Your task to perform on an android device: toggle data saver in the chrome app Image 0: 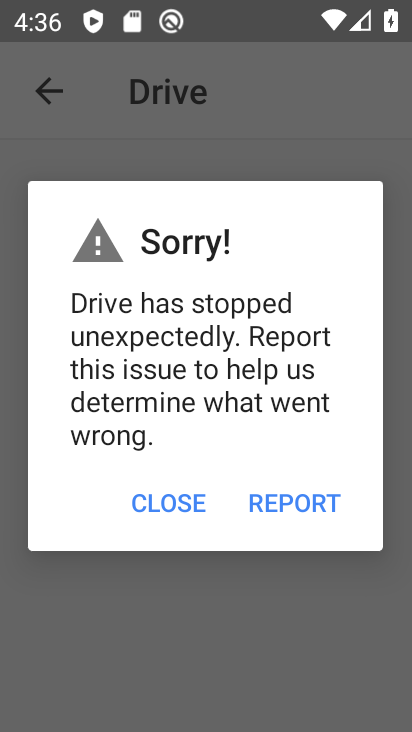
Step 0: press home button
Your task to perform on an android device: toggle data saver in the chrome app Image 1: 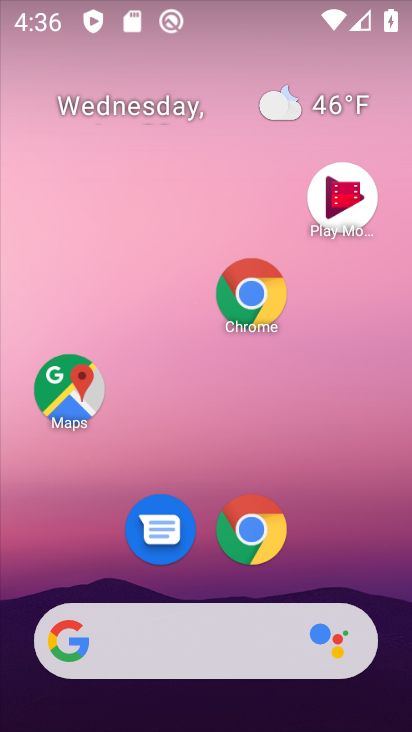
Step 1: click (245, 531)
Your task to perform on an android device: toggle data saver in the chrome app Image 2: 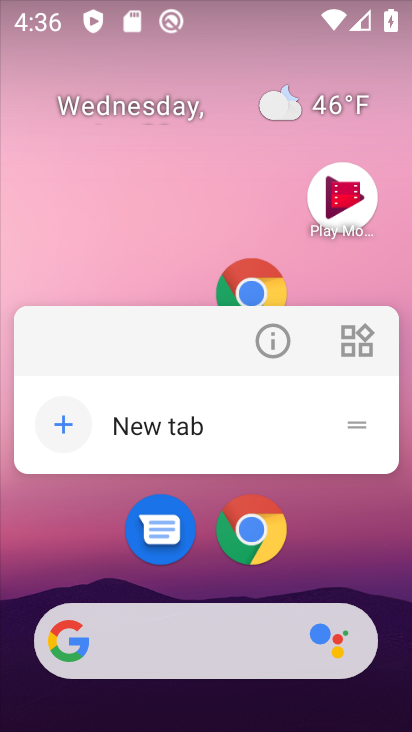
Step 2: click (245, 531)
Your task to perform on an android device: toggle data saver in the chrome app Image 3: 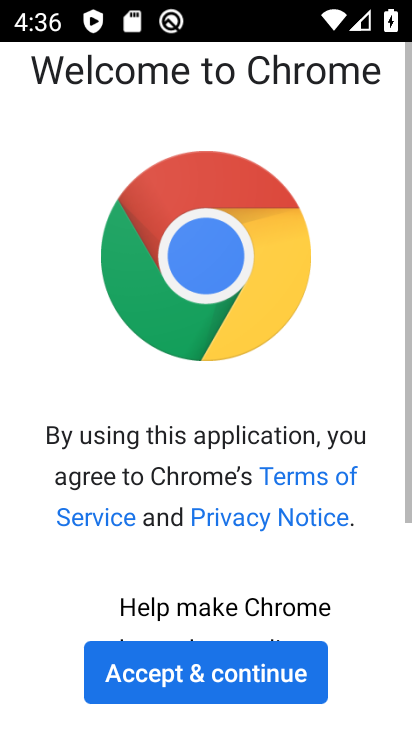
Step 3: click (249, 688)
Your task to perform on an android device: toggle data saver in the chrome app Image 4: 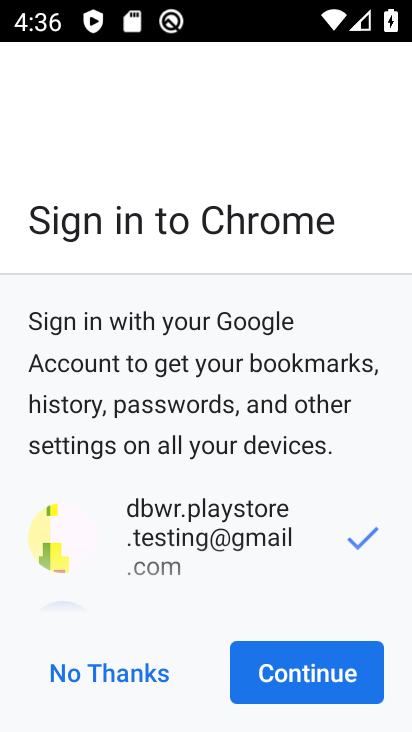
Step 4: click (268, 682)
Your task to perform on an android device: toggle data saver in the chrome app Image 5: 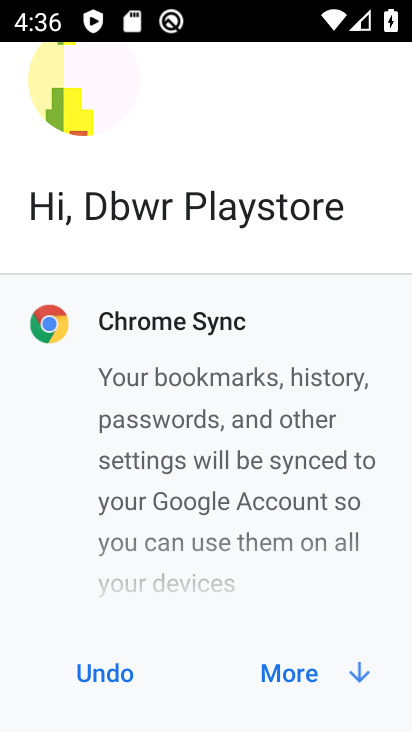
Step 5: click (282, 675)
Your task to perform on an android device: toggle data saver in the chrome app Image 6: 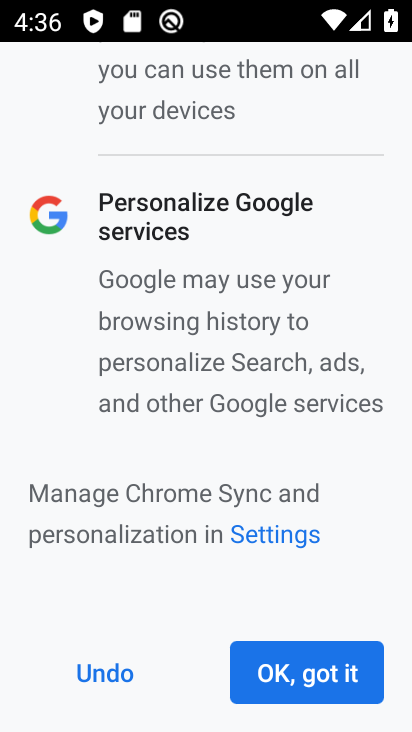
Step 6: click (282, 675)
Your task to perform on an android device: toggle data saver in the chrome app Image 7: 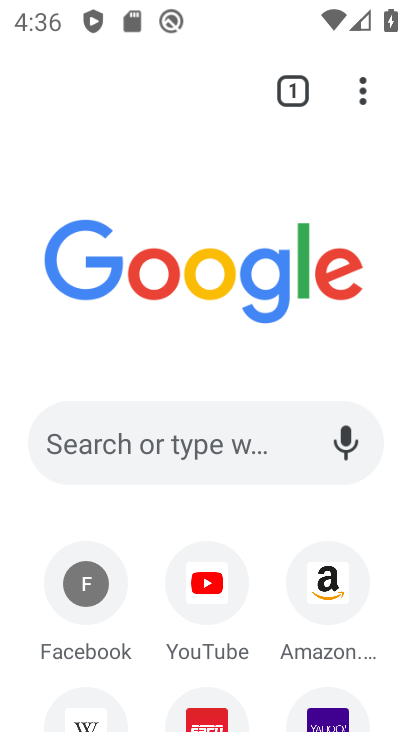
Step 7: drag from (265, 679) to (283, 517)
Your task to perform on an android device: toggle data saver in the chrome app Image 8: 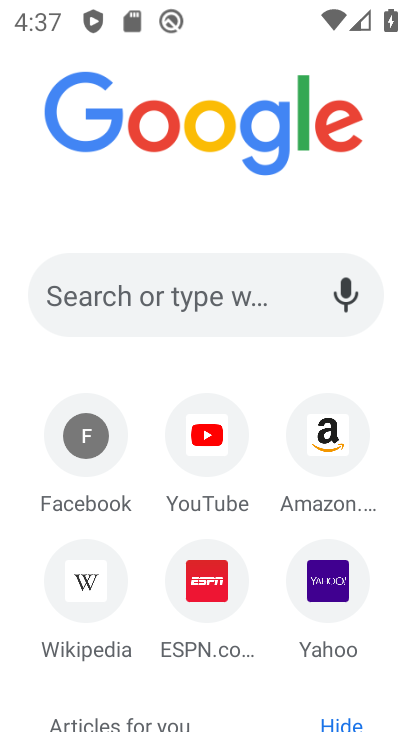
Step 8: drag from (294, 466) to (277, 669)
Your task to perform on an android device: toggle data saver in the chrome app Image 9: 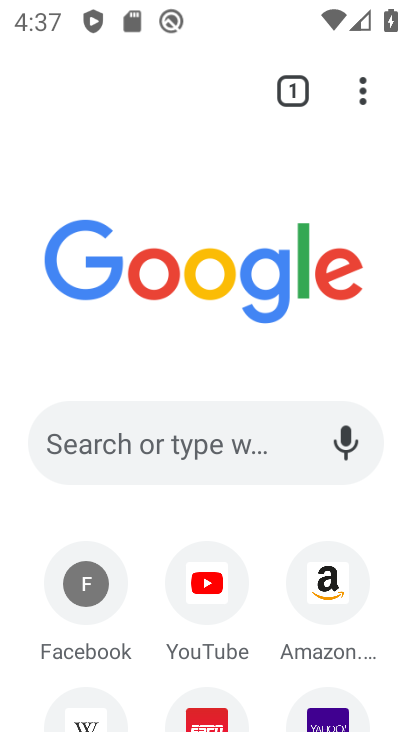
Step 9: drag from (356, 71) to (236, 574)
Your task to perform on an android device: toggle data saver in the chrome app Image 10: 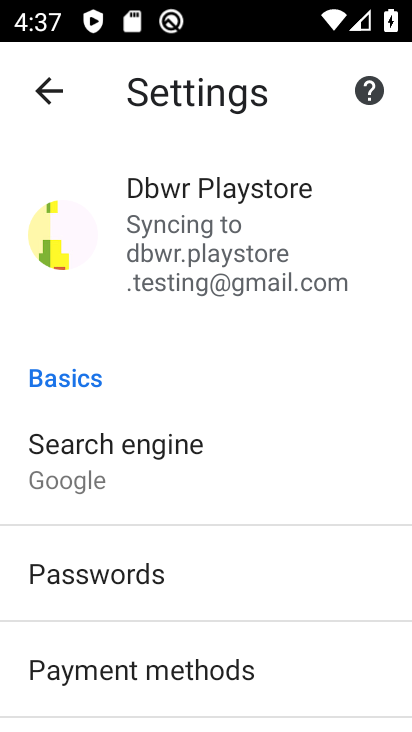
Step 10: drag from (233, 593) to (244, 257)
Your task to perform on an android device: toggle data saver in the chrome app Image 11: 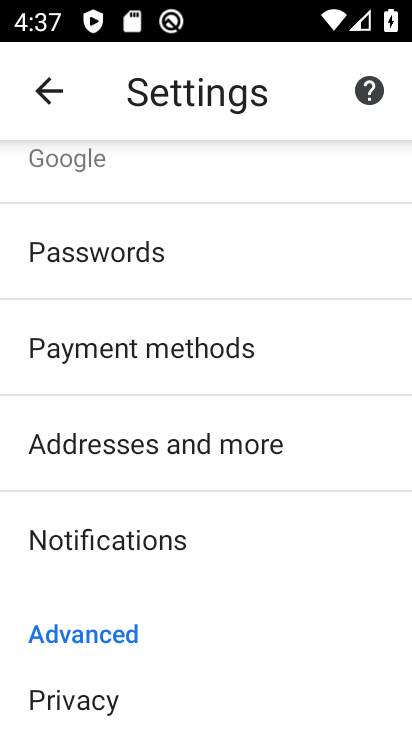
Step 11: drag from (218, 541) to (224, 323)
Your task to perform on an android device: toggle data saver in the chrome app Image 12: 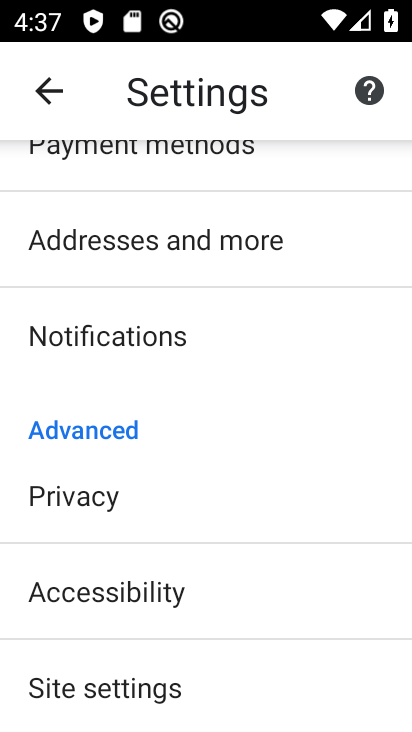
Step 12: drag from (193, 667) to (215, 251)
Your task to perform on an android device: toggle data saver in the chrome app Image 13: 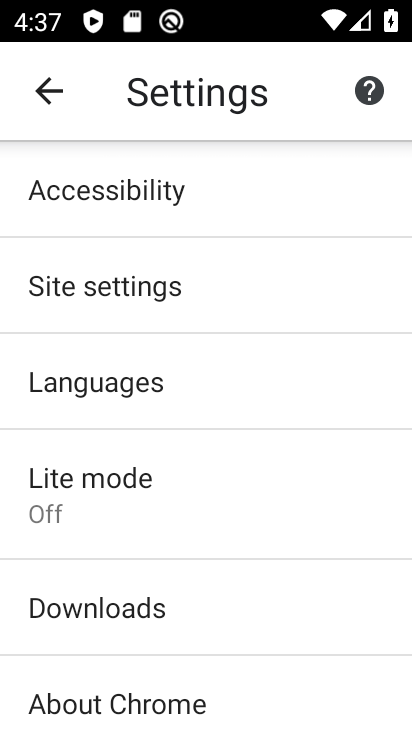
Step 13: click (117, 523)
Your task to perform on an android device: toggle data saver in the chrome app Image 14: 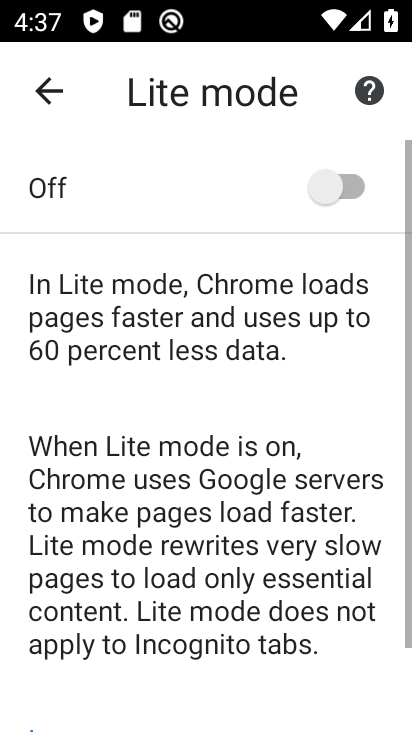
Step 14: click (350, 186)
Your task to perform on an android device: toggle data saver in the chrome app Image 15: 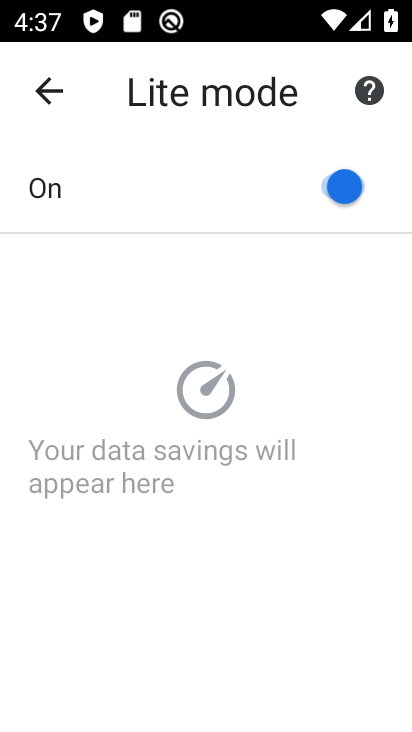
Step 15: task complete